Your task to perform on an android device: uninstall "Pluto TV - Live TV and Movies" Image 0: 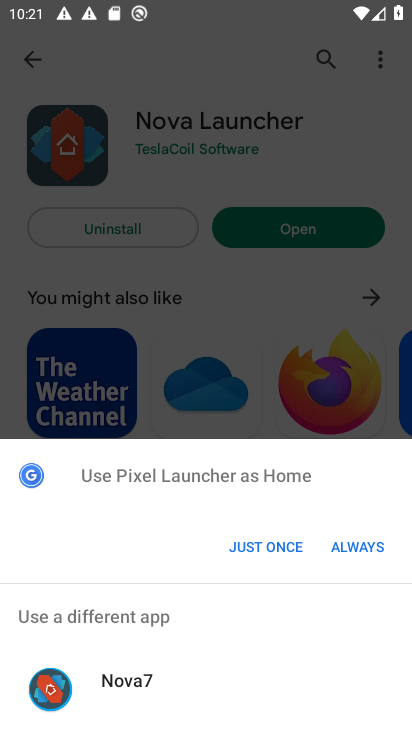
Step 0: press home button
Your task to perform on an android device: uninstall "Pluto TV - Live TV and Movies" Image 1: 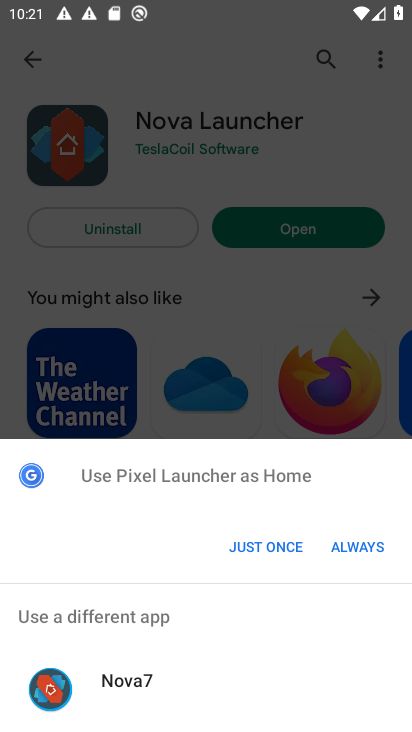
Step 1: click (268, 549)
Your task to perform on an android device: uninstall "Pluto TV - Live TV and Movies" Image 2: 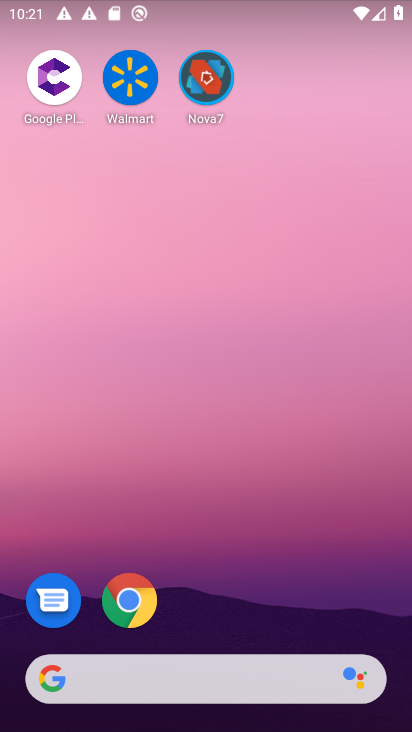
Step 2: drag from (196, 608) to (223, 30)
Your task to perform on an android device: uninstall "Pluto TV - Live TV and Movies" Image 3: 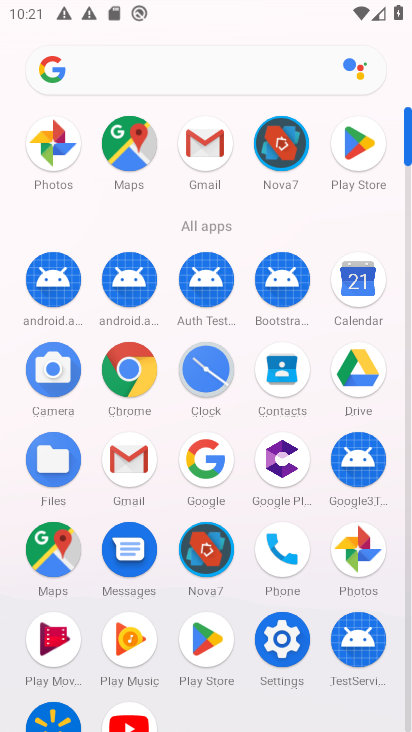
Step 3: click (371, 159)
Your task to perform on an android device: uninstall "Pluto TV - Live TV and Movies" Image 4: 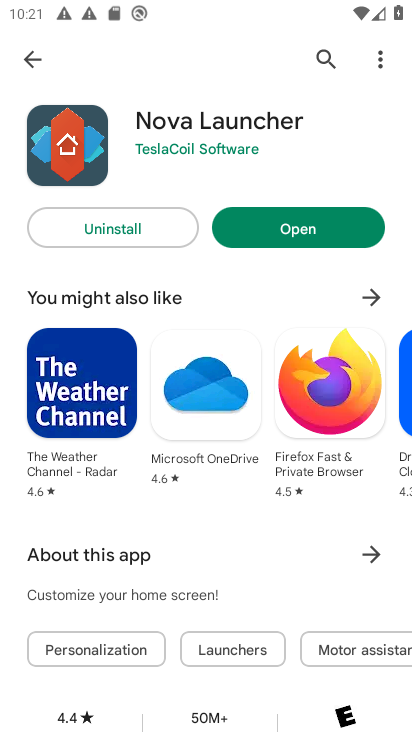
Step 4: click (34, 56)
Your task to perform on an android device: uninstall "Pluto TV - Live TV and Movies" Image 5: 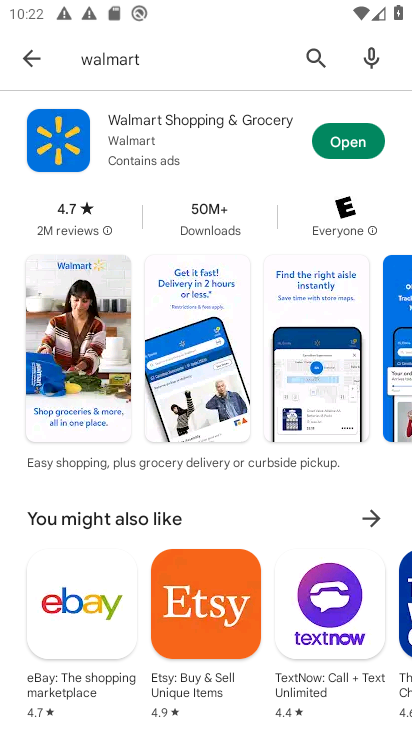
Step 5: click (134, 67)
Your task to perform on an android device: uninstall "Pluto TV - Live TV and Movies" Image 6: 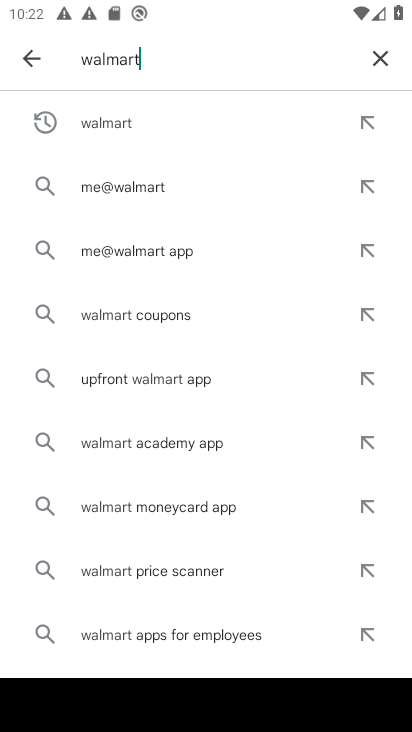
Step 6: click (381, 55)
Your task to perform on an android device: uninstall "Pluto TV - Live TV and Movies" Image 7: 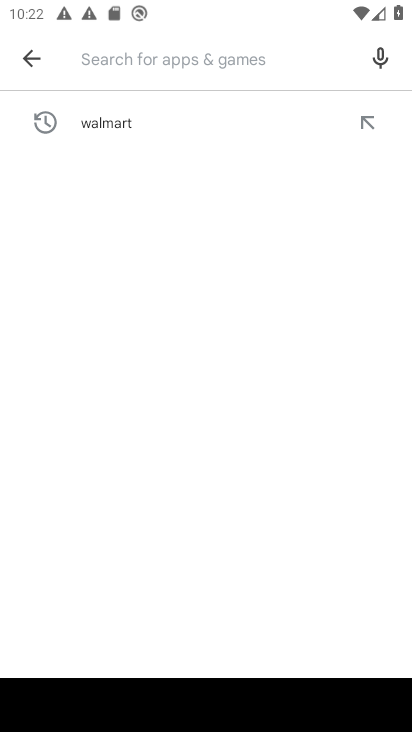
Step 7: type "Pluto TV"
Your task to perform on an android device: uninstall "Pluto TV - Live TV and Movies" Image 8: 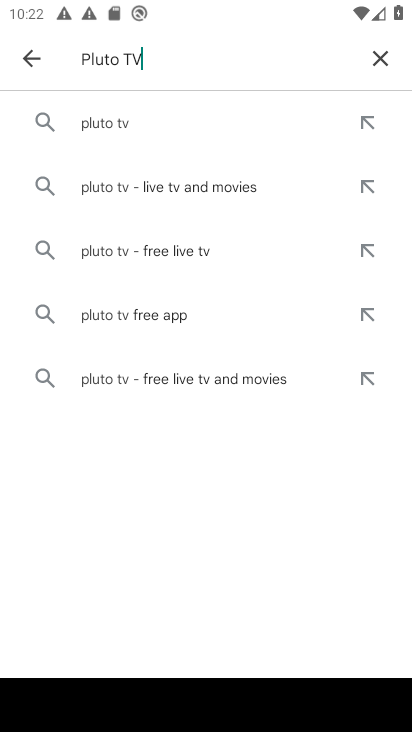
Step 8: click (121, 132)
Your task to perform on an android device: uninstall "Pluto TV - Live TV and Movies" Image 9: 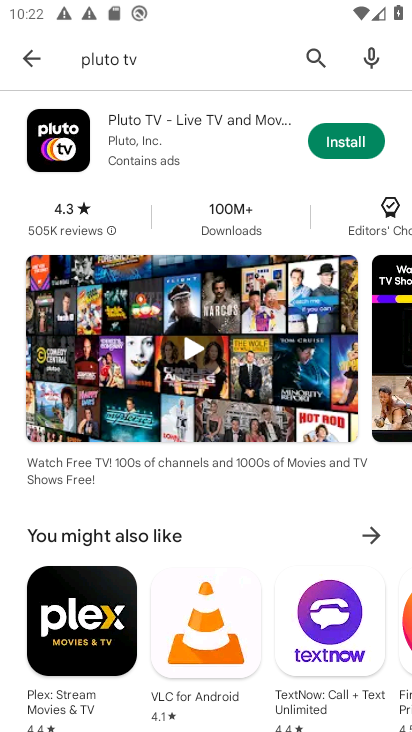
Step 9: task complete